Your task to perform on an android device: Open Reddit.com Image 0: 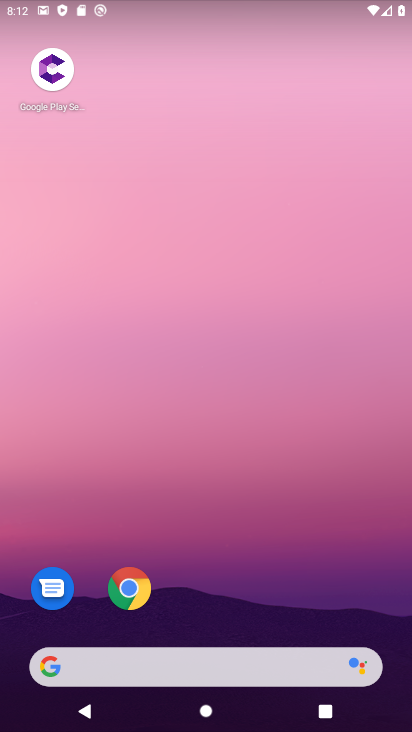
Step 0: click (126, 601)
Your task to perform on an android device: Open Reddit.com Image 1: 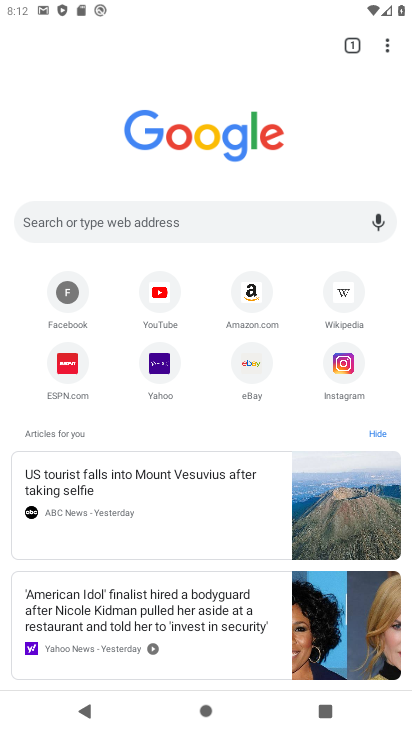
Step 1: click (81, 226)
Your task to perform on an android device: Open Reddit.com Image 2: 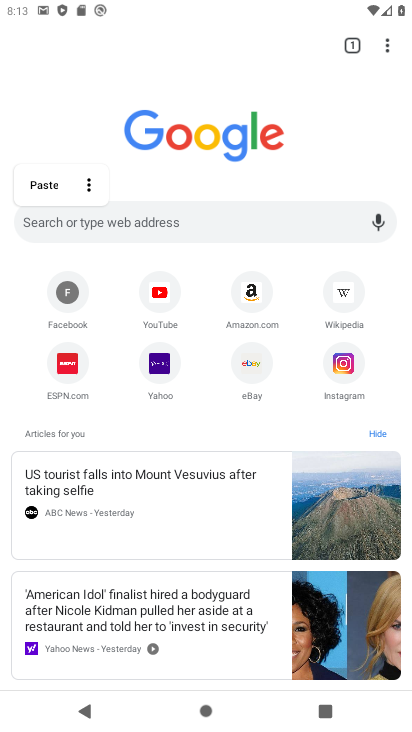
Step 2: click (173, 227)
Your task to perform on an android device: Open Reddit.com Image 3: 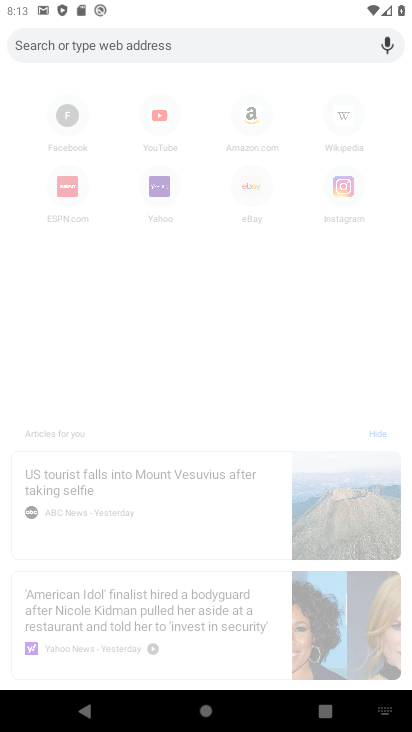
Step 3: click (144, 41)
Your task to perform on an android device: Open Reddit.com Image 4: 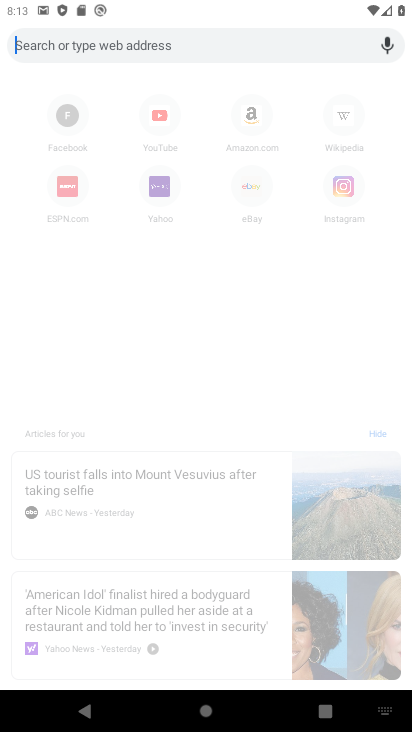
Step 4: type "reddit.com"
Your task to perform on an android device: Open Reddit.com Image 5: 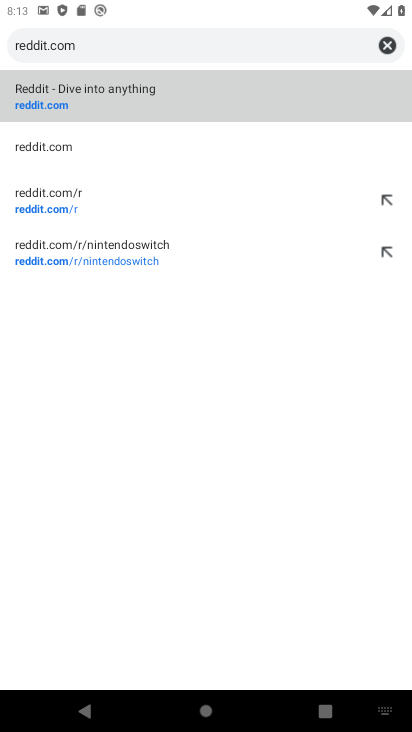
Step 5: click (28, 95)
Your task to perform on an android device: Open Reddit.com Image 6: 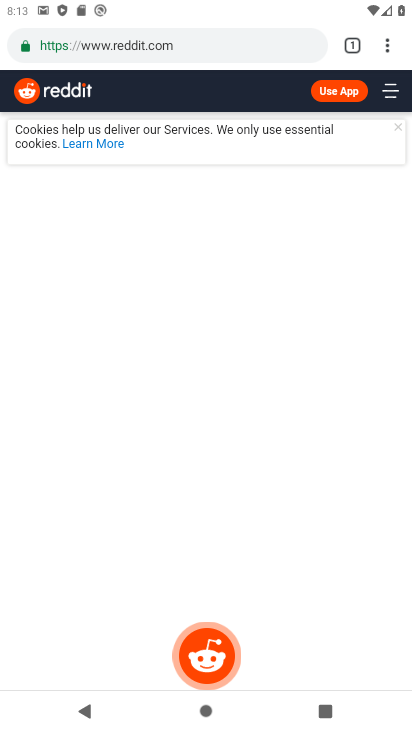
Step 6: task complete